Your task to perform on an android device: Open the stopwatch Image 0: 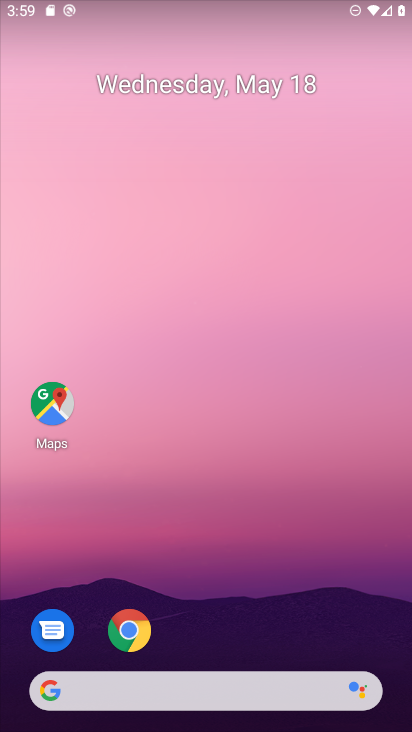
Step 0: drag from (258, 310) to (276, 41)
Your task to perform on an android device: Open the stopwatch Image 1: 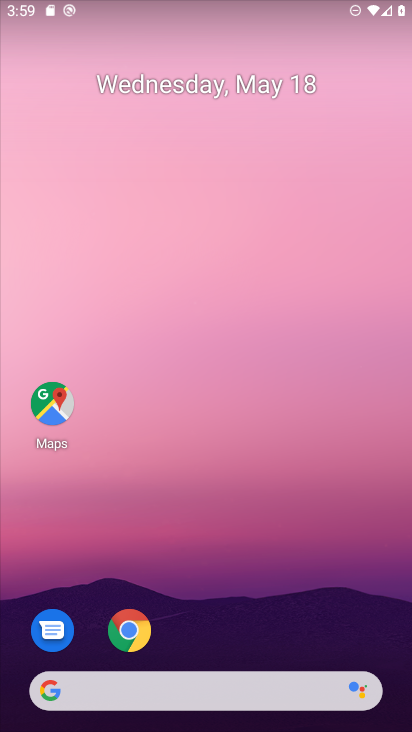
Step 1: drag from (209, 636) to (239, 10)
Your task to perform on an android device: Open the stopwatch Image 2: 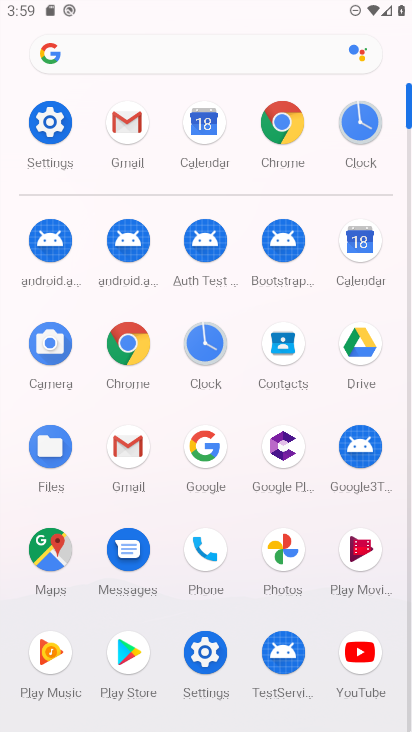
Step 2: click (201, 337)
Your task to perform on an android device: Open the stopwatch Image 3: 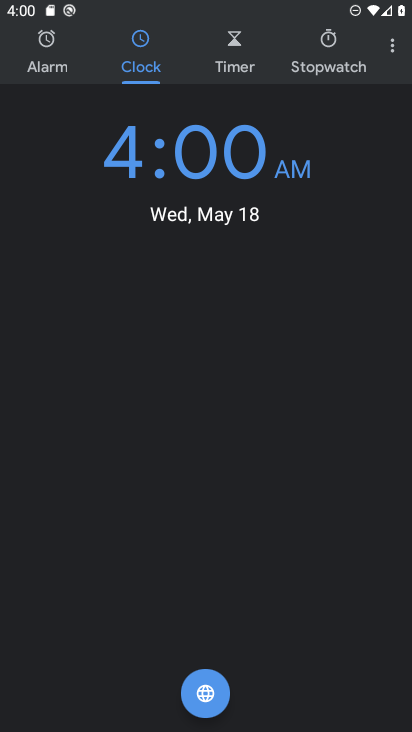
Step 3: click (320, 35)
Your task to perform on an android device: Open the stopwatch Image 4: 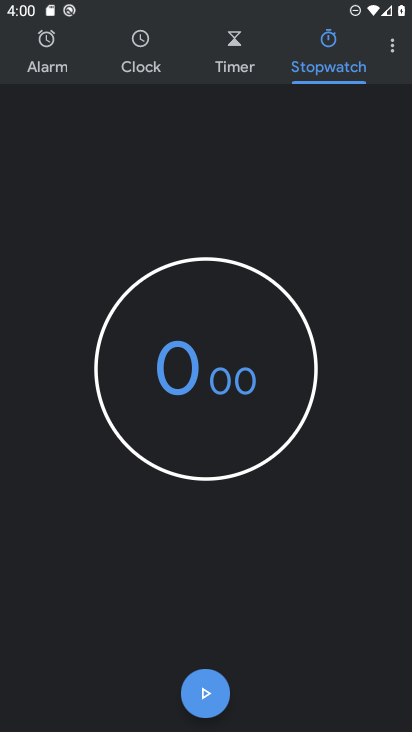
Step 4: click (207, 685)
Your task to perform on an android device: Open the stopwatch Image 5: 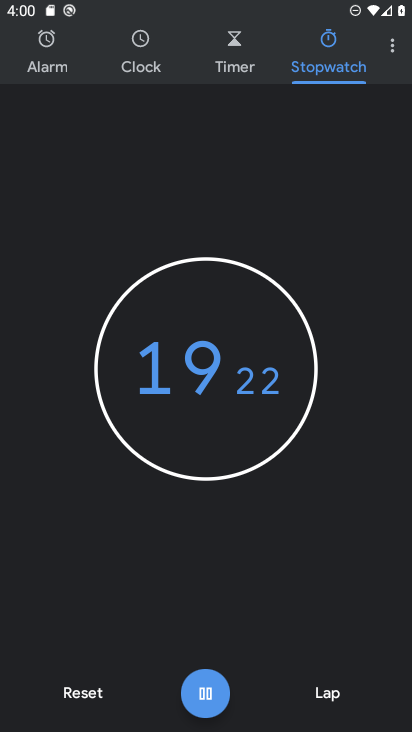
Step 5: task complete